Your task to perform on an android device: snooze an email in the gmail app Image 0: 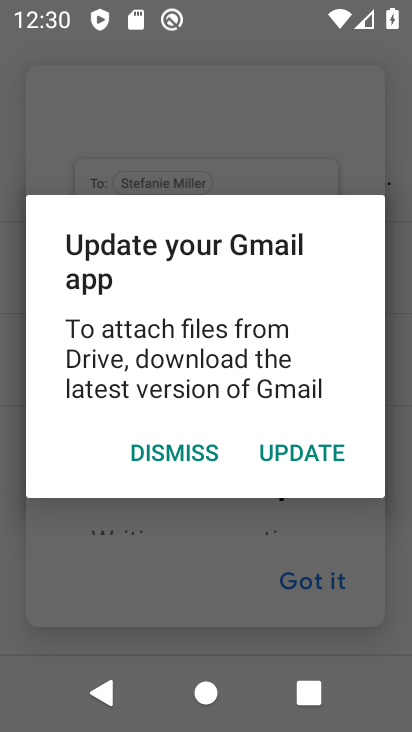
Step 0: press home button
Your task to perform on an android device: snooze an email in the gmail app Image 1: 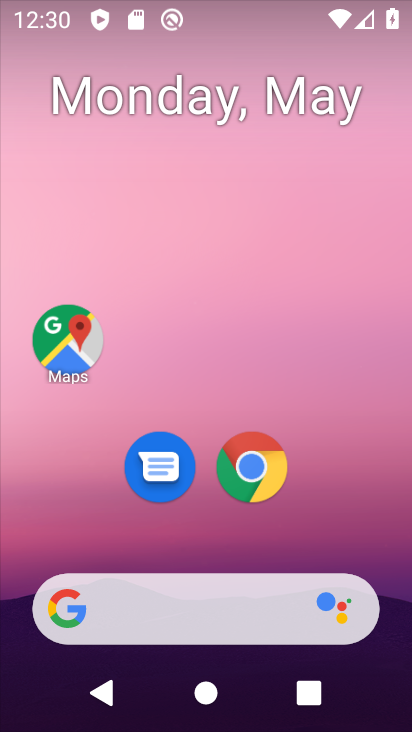
Step 1: drag from (340, 516) to (259, 62)
Your task to perform on an android device: snooze an email in the gmail app Image 2: 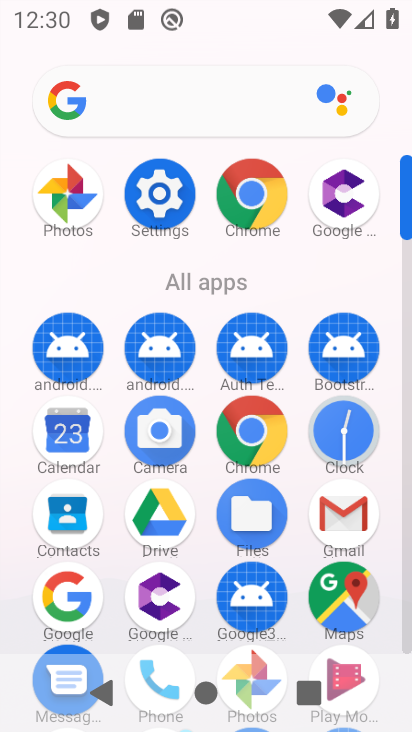
Step 2: click (324, 514)
Your task to perform on an android device: snooze an email in the gmail app Image 3: 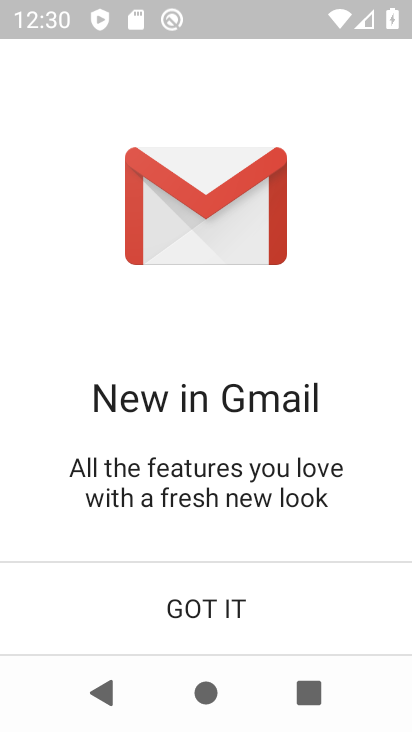
Step 3: click (202, 621)
Your task to perform on an android device: snooze an email in the gmail app Image 4: 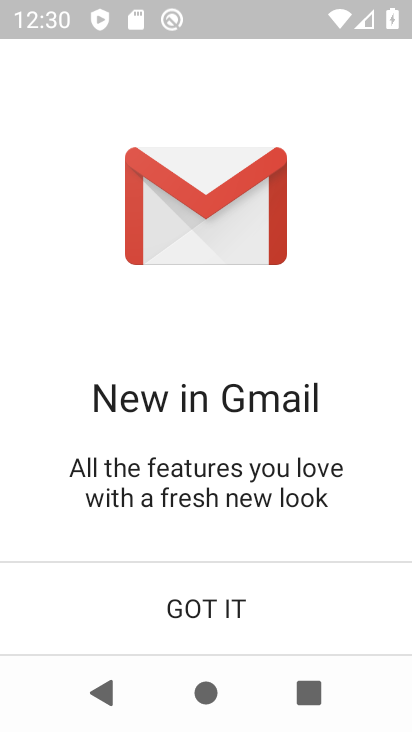
Step 4: click (202, 621)
Your task to perform on an android device: snooze an email in the gmail app Image 5: 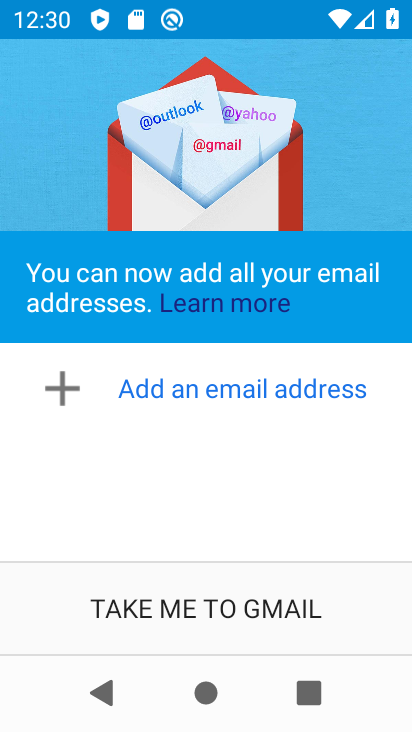
Step 5: click (202, 621)
Your task to perform on an android device: snooze an email in the gmail app Image 6: 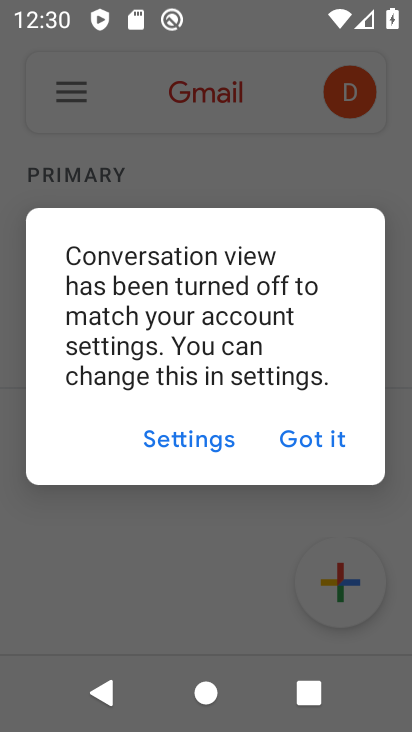
Step 6: click (281, 440)
Your task to perform on an android device: snooze an email in the gmail app Image 7: 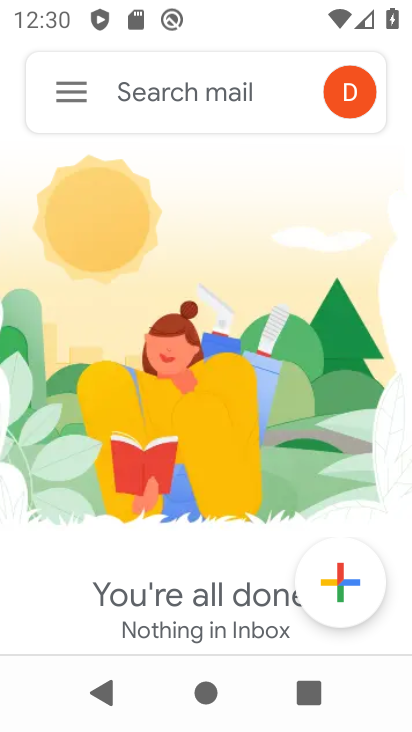
Step 7: click (80, 96)
Your task to perform on an android device: snooze an email in the gmail app Image 8: 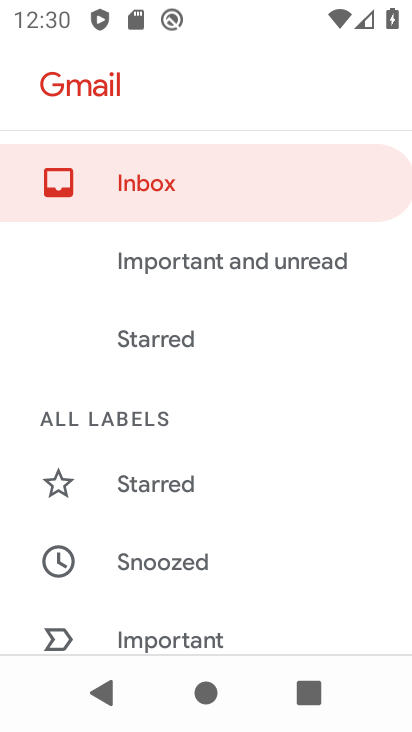
Step 8: task complete